Your task to perform on an android device: Open notification settings Image 0: 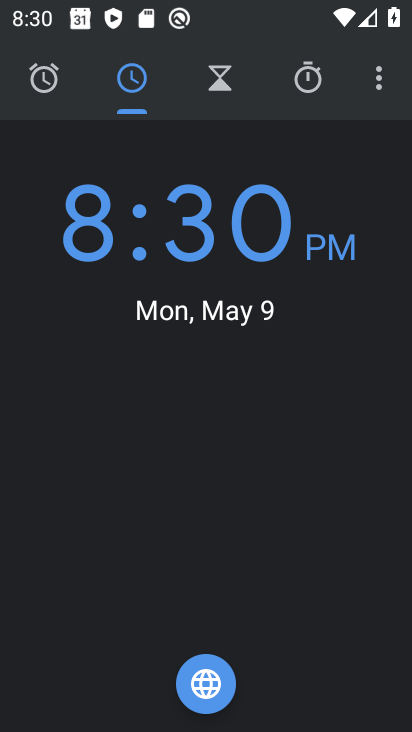
Step 0: press back button
Your task to perform on an android device: Open notification settings Image 1: 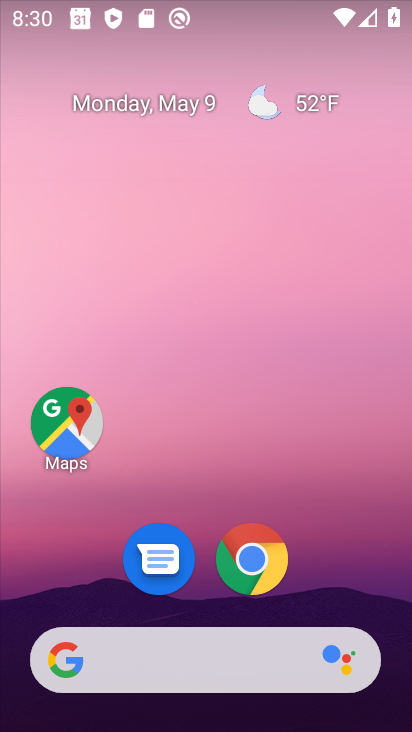
Step 1: drag from (198, 598) to (289, 0)
Your task to perform on an android device: Open notification settings Image 2: 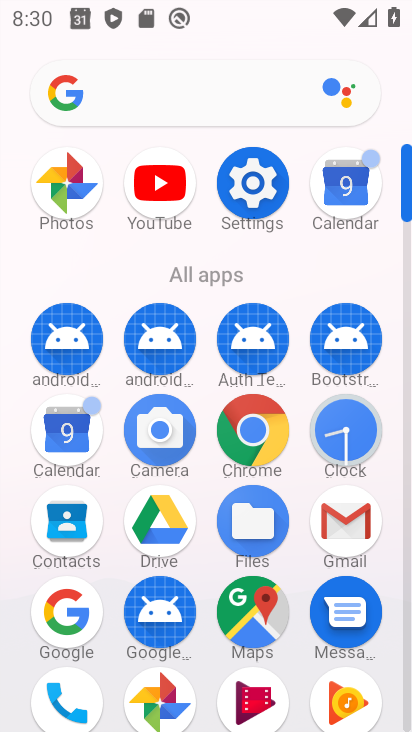
Step 2: click (249, 179)
Your task to perform on an android device: Open notification settings Image 3: 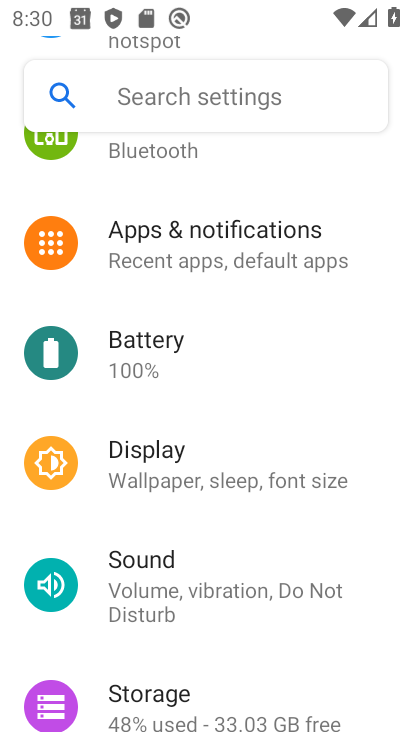
Step 3: click (239, 245)
Your task to perform on an android device: Open notification settings Image 4: 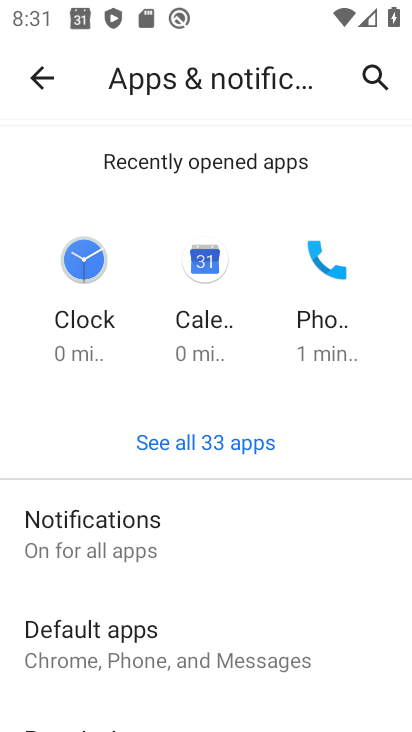
Step 4: task complete